Your task to perform on an android device: turn notification dots off Image 0: 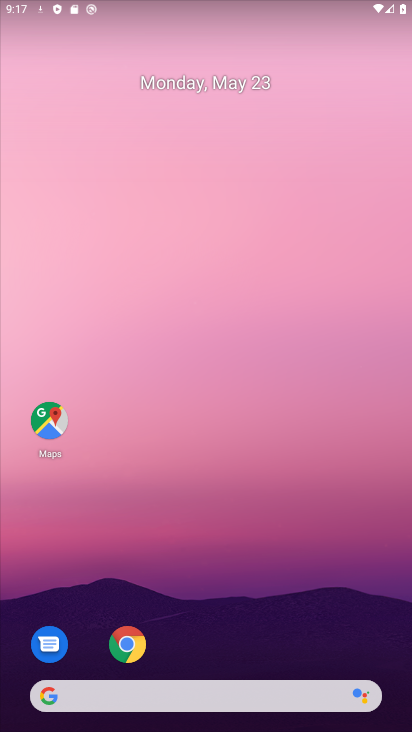
Step 0: drag from (282, 720) to (210, 272)
Your task to perform on an android device: turn notification dots off Image 1: 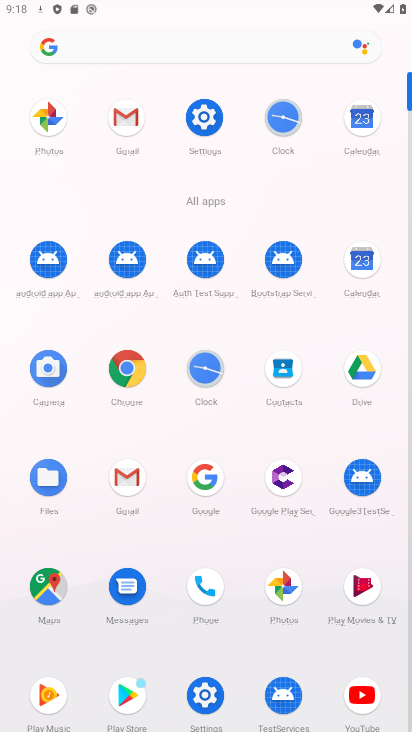
Step 1: click (199, 128)
Your task to perform on an android device: turn notification dots off Image 2: 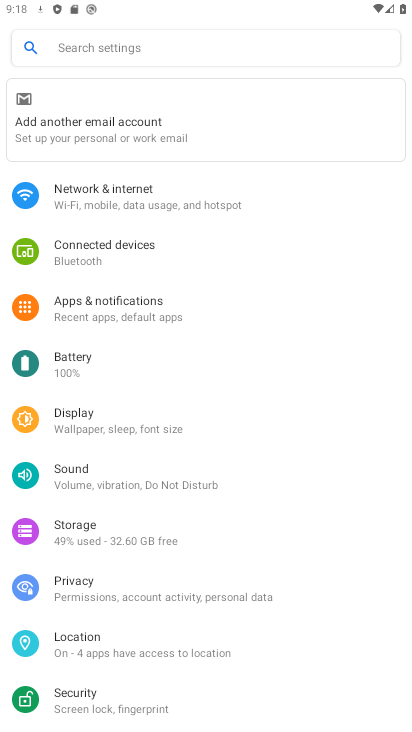
Step 2: click (135, 56)
Your task to perform on an android device: turn notification dots off Image 3: 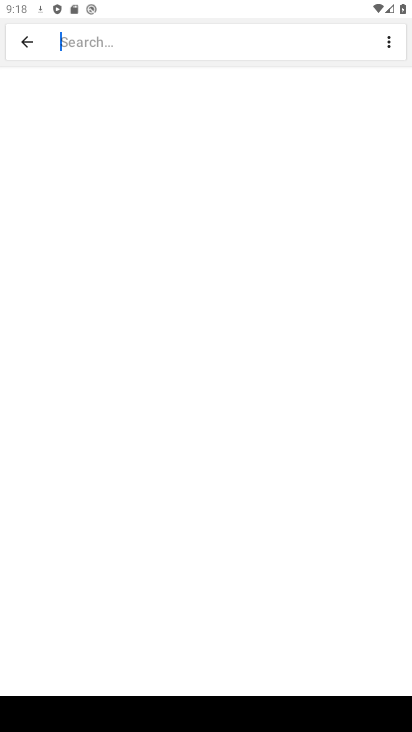
Step 3: drag from (383, 713) to (307, 448)
Your task to perform on an android device: turn notification dots off Image 4: 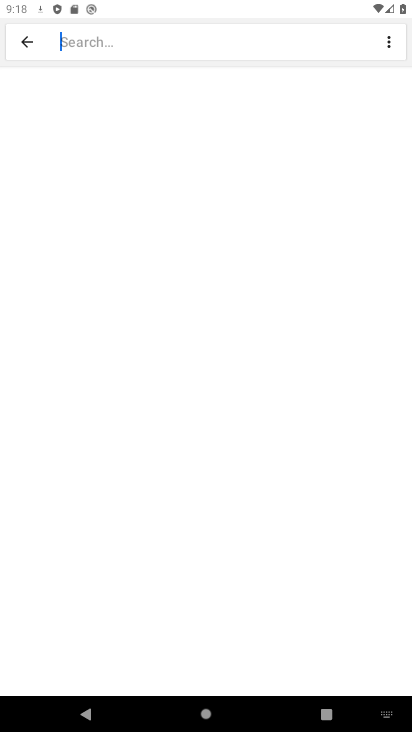
Step 4: click (389, 709)
Your task to perform on an android device: turn notification dots off Image 5: 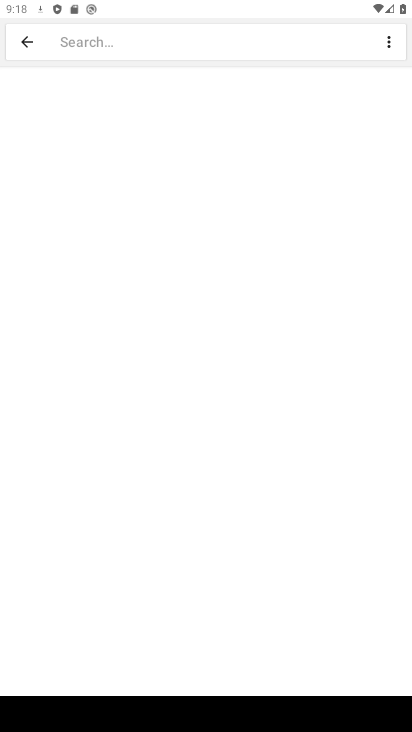
Step 5: drag from (383, 713) to (347, 522)
Your task to perform on an android device: turn notification dots off Image 6: 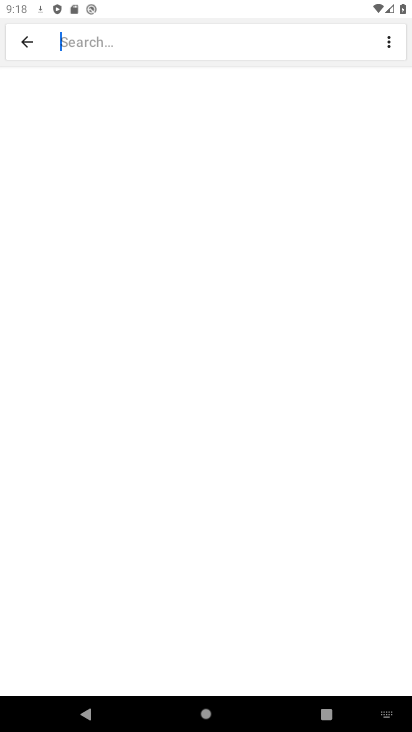
Step 6: click (396, 707)
Your task to perform on an android device: turn notification dots off Image 7: 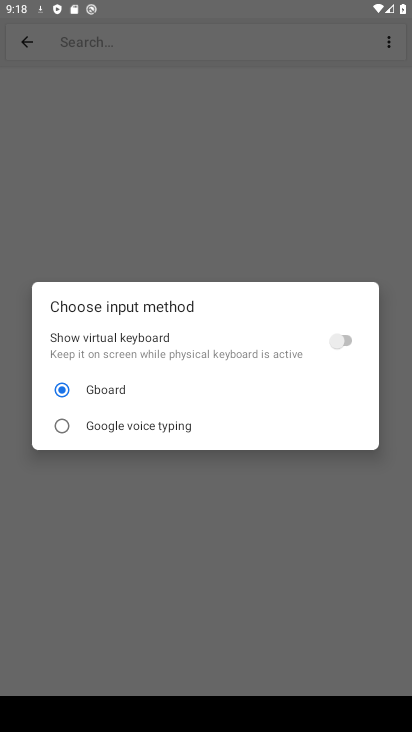
Step 7: click (339, 333)
Your task to perform on an android device: turn notification dots off Image 8: 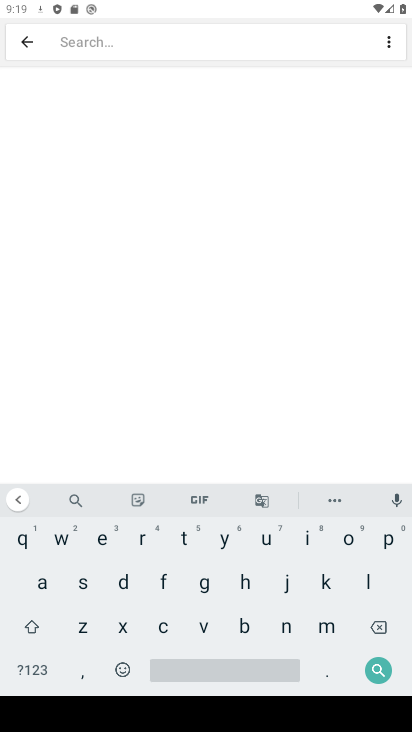
Step 8: click (124, 575)
Your task to perform on an android device: turn notification dots off Image 9: 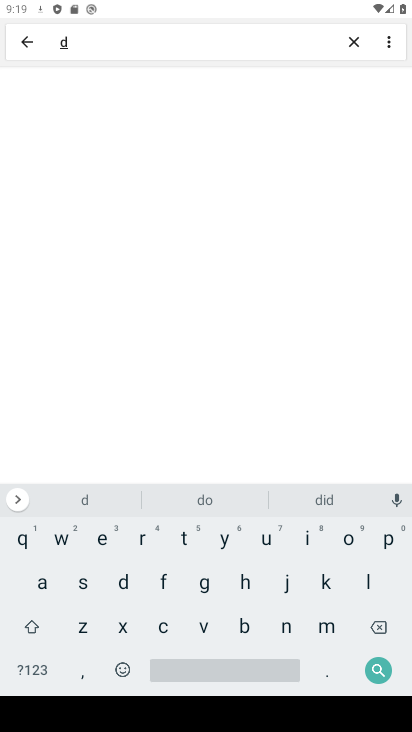
Step 9: click (349, 542)
Your task to perform on an android device: turn notification dots off Image 10: 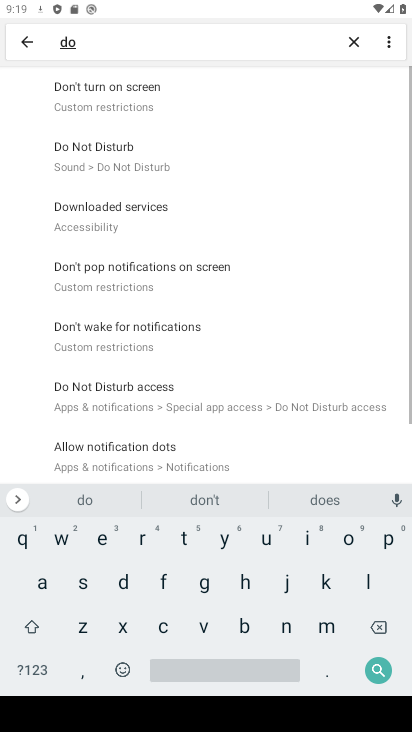
Step 10: click (185, 539)
Your task to perform on an android device: turn notification dots off Image 11: 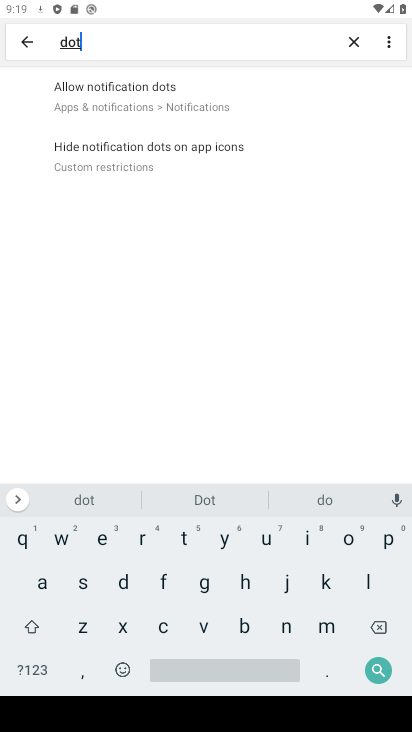
Step 11: click (125, 116)
Your task to perform on an android device: turn notification dots off Image 12: 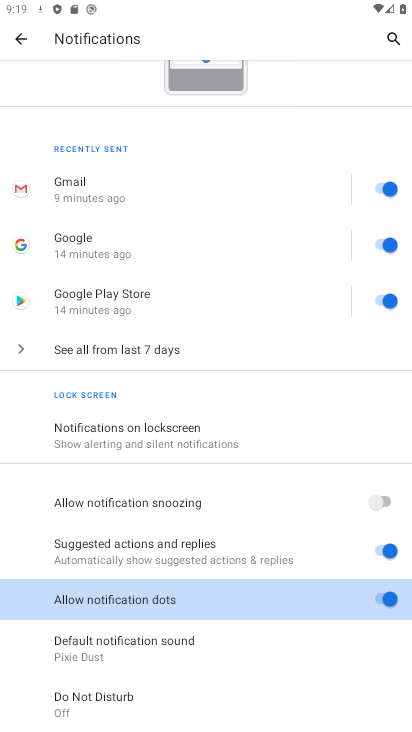
Step 12: click (384, 596)
Your task to perform on an android device: turn notification dots off Image 13: 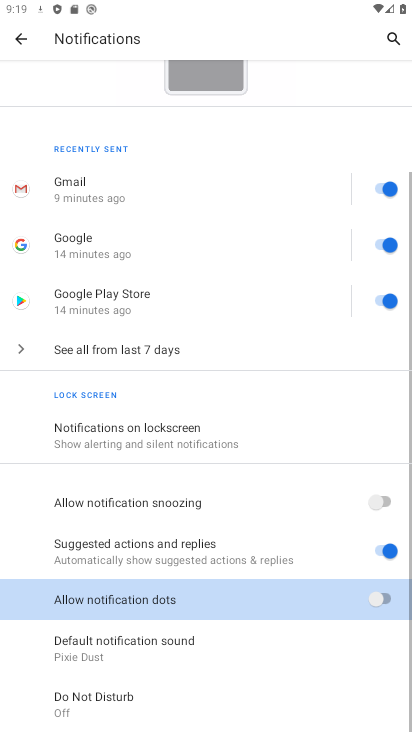
Step 13: task complete